Your task to perform on an android device: What is the news today? Image 0: 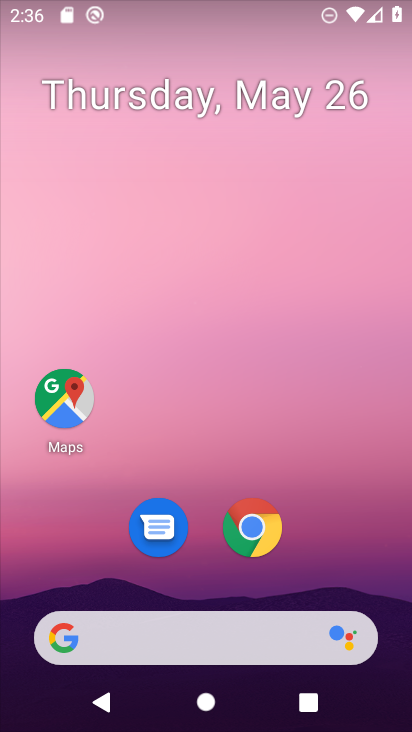
Step 0: click (259, 644)
Your task to perform on an android device: What is the news today? Image 1: 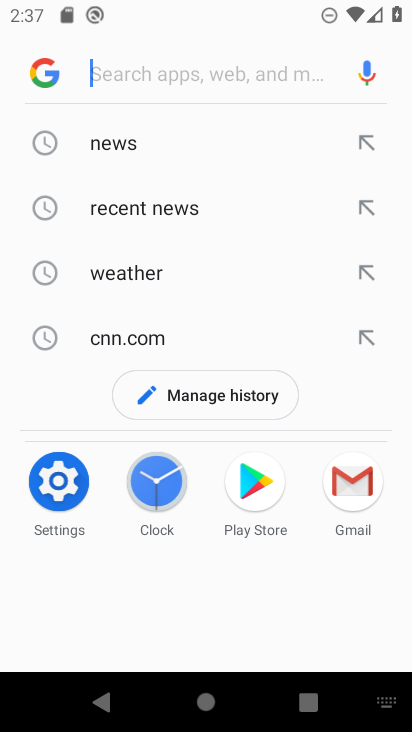
Step 1: type "news today"
Your task to perform on an android device: What is the news today? Image 2: 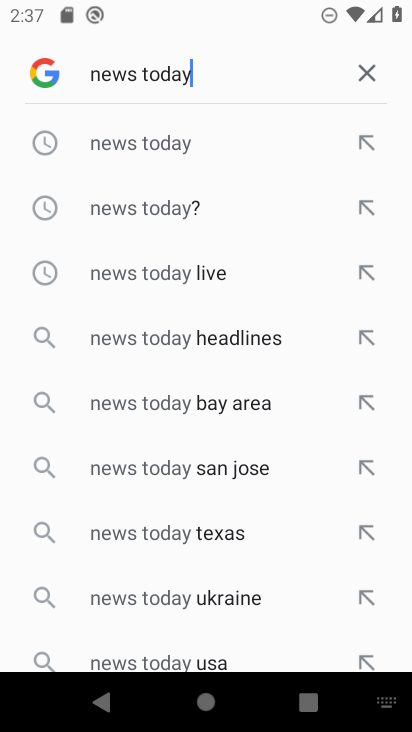
Step 2: click (170, 209)
Your task to perform on an android device: What is the news today? Image 3: 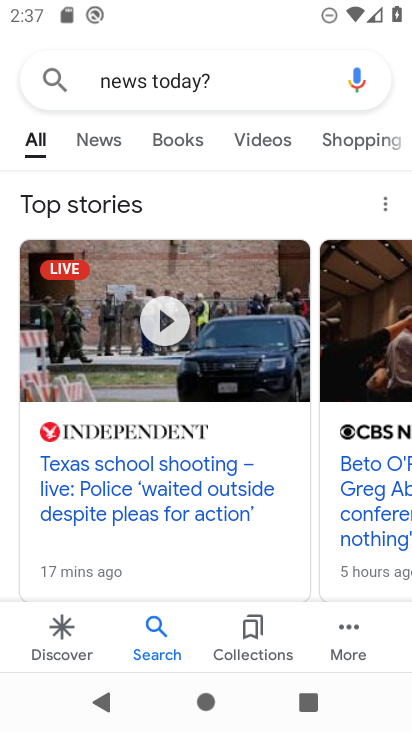
Step 3: task complete